Your task to perform on an android device: manage bookmarks in the chrome app Image 0: 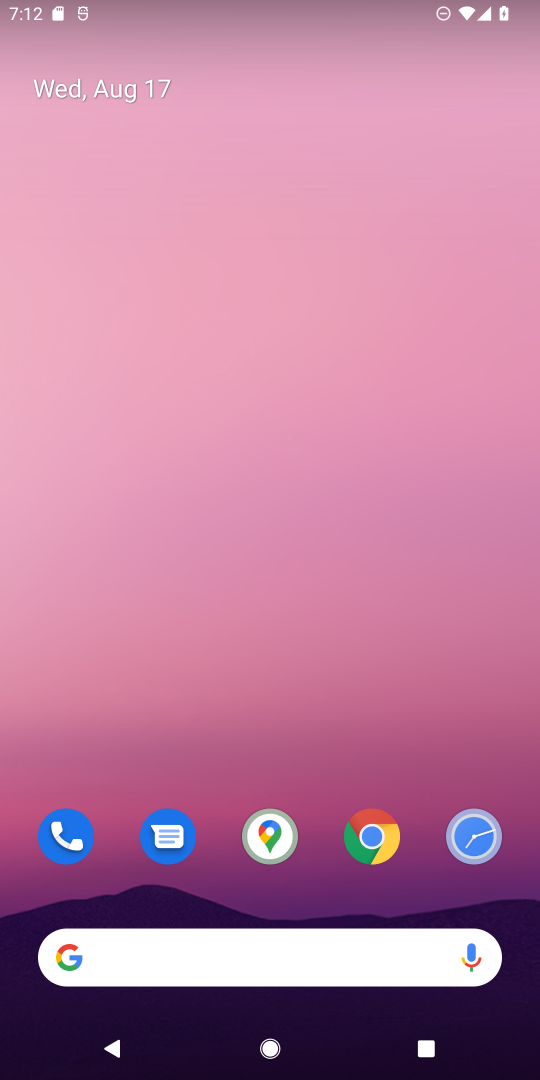
Step 0: drag from (282, 816) to (281, 502)
Your task to perform on an android device: manage bookmarks in the chrome app Image 1: 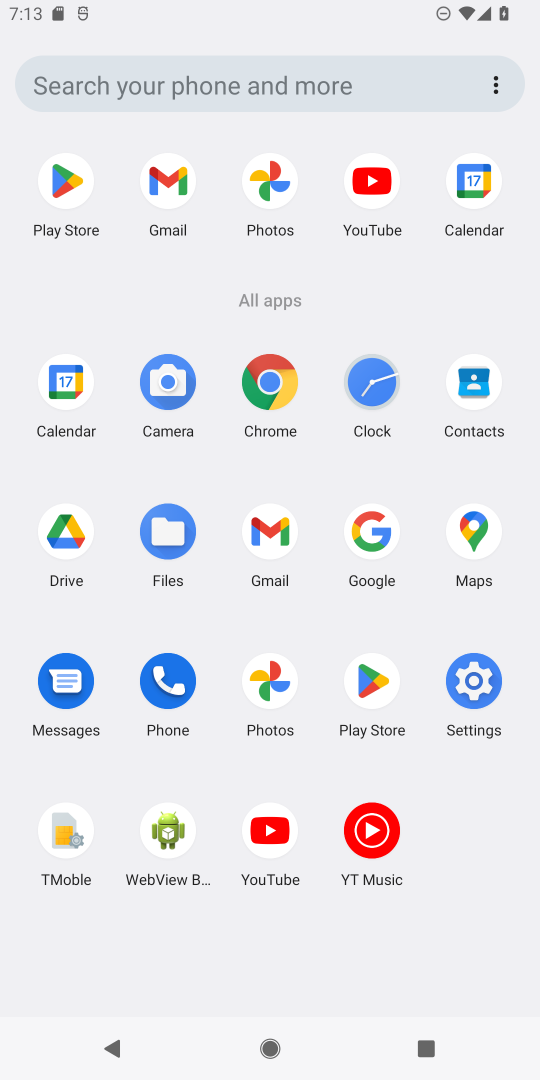
Step 1: click (278, 381)
Your task to perform on an android device: manage bookmarks in the chrome app Image 2: 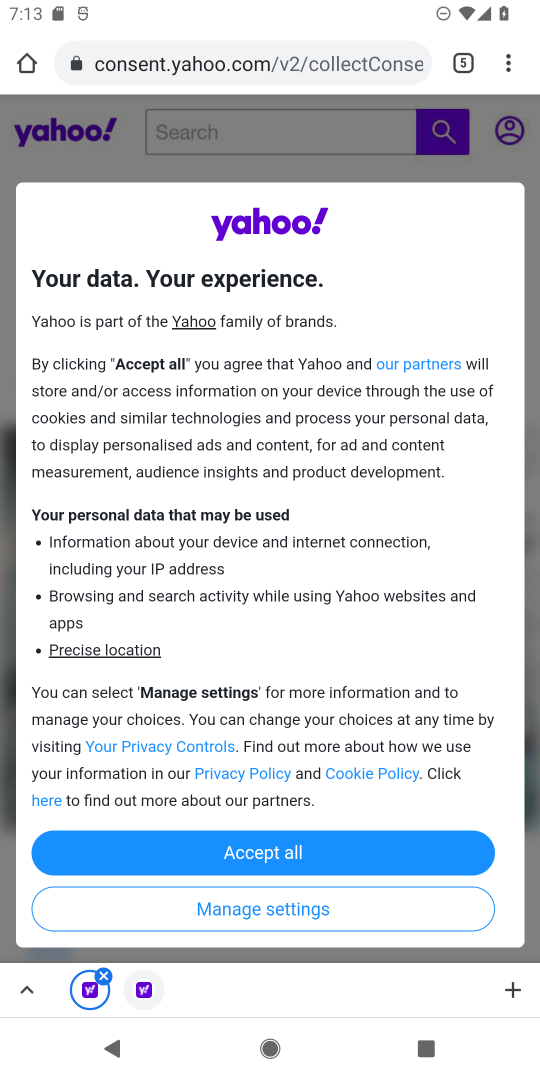
Step 2: click (505, 68)
Your task to perform on an android device: manage bookmarks in the chrome app Image 3: 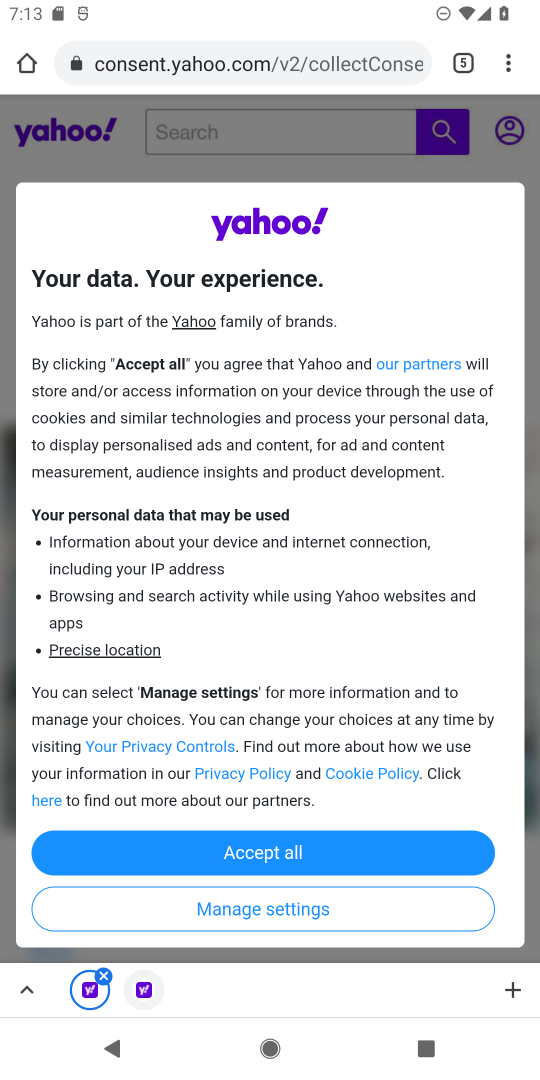
Step 3: click (502, 63)
Your task to perform on an android device: manage bookmarks in the chrome app Image 4: 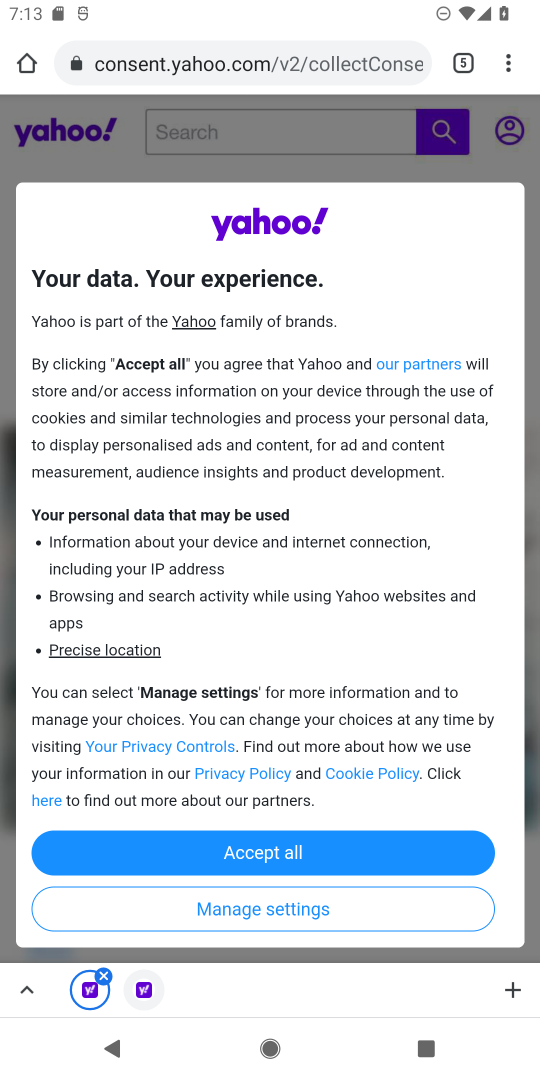
Step 4: click (517, 67)
Your task to perform on an android device: manage bookmarks in the chrome app Image 5: 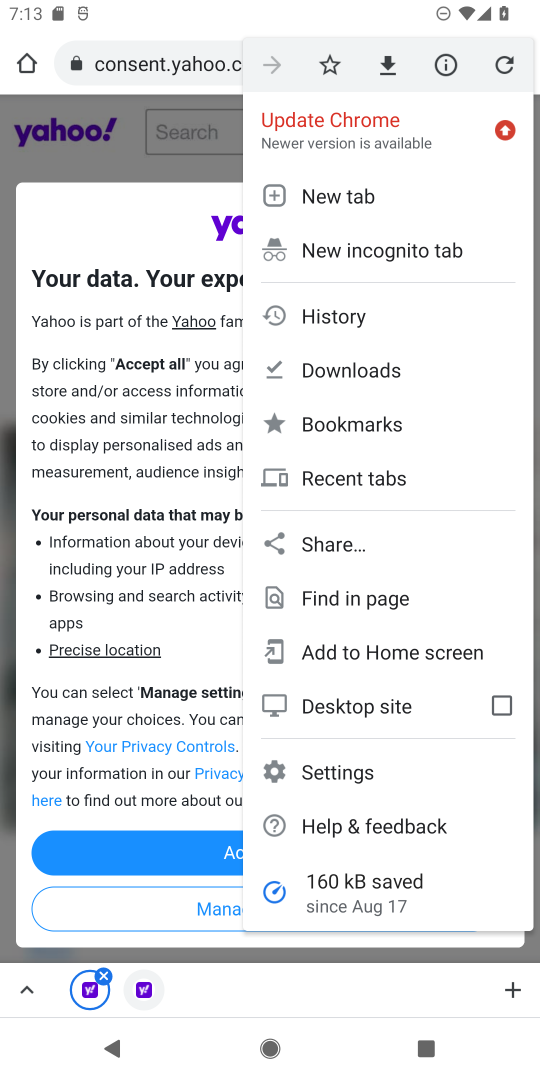
Step 5: click (353, 410)
Your task to perform on an android device: manage bookmarks in the chrome app Image 6: 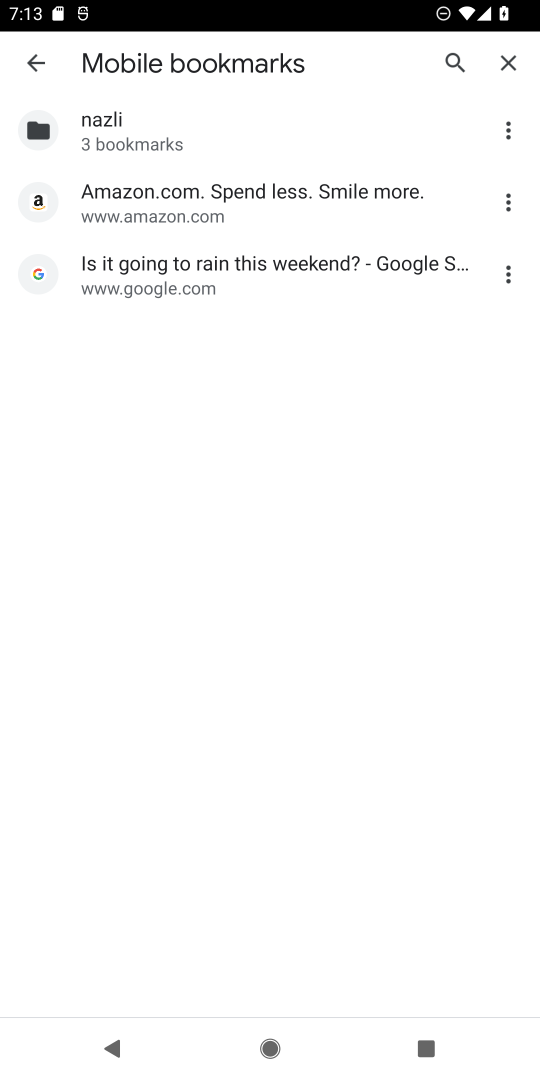
Step 6: click (224, 189)
Your task to perform on an android device: manage bookmarks in the chrome app Image 7: 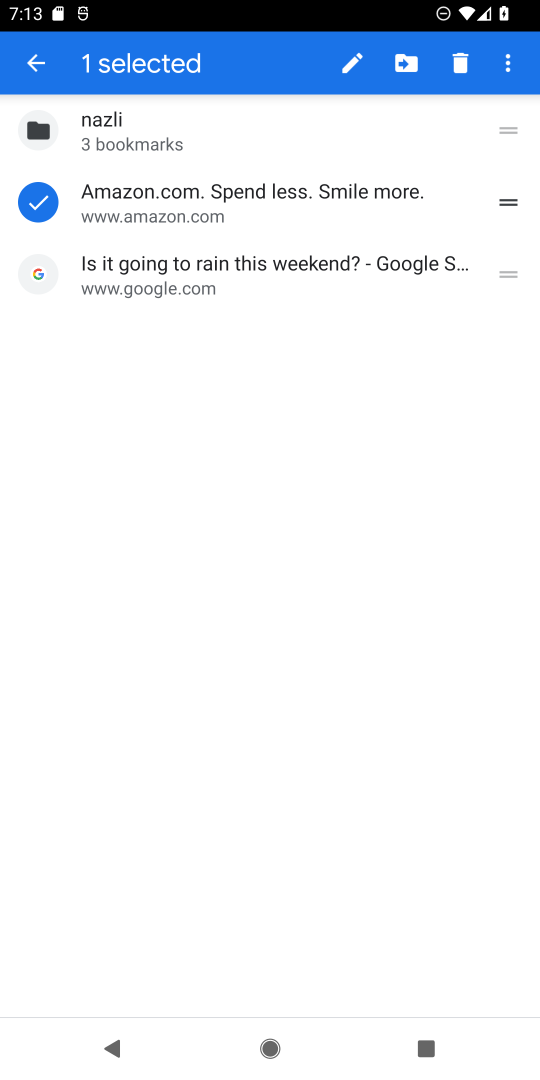
Step 7: click (173, 279)
Your task to perform on an android device: manage bookmarks in the chrome app Image 8: 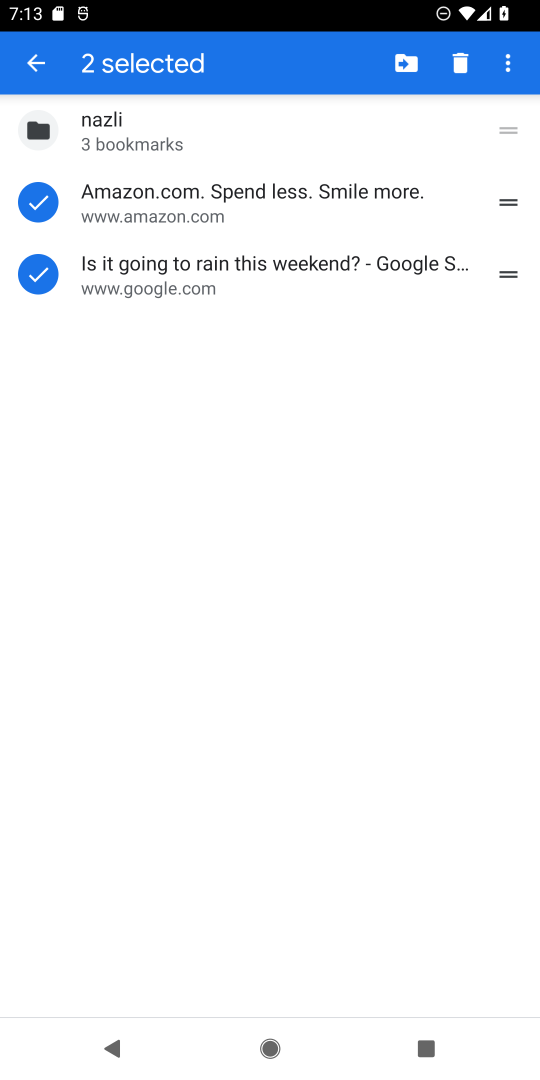
Step 8: click (408, 72)
Your task to perform on an android device: manage bookmarks in the chrome app Image 9: 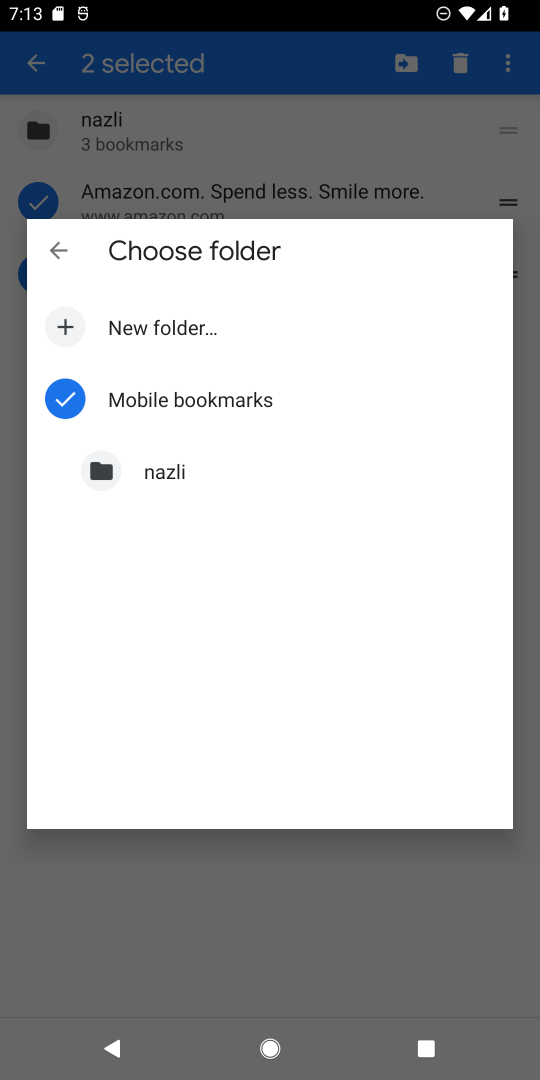
Step 9: click (157, 453)
Your task to perform on an android device: manage bookmarks in the chrome app Image 10: 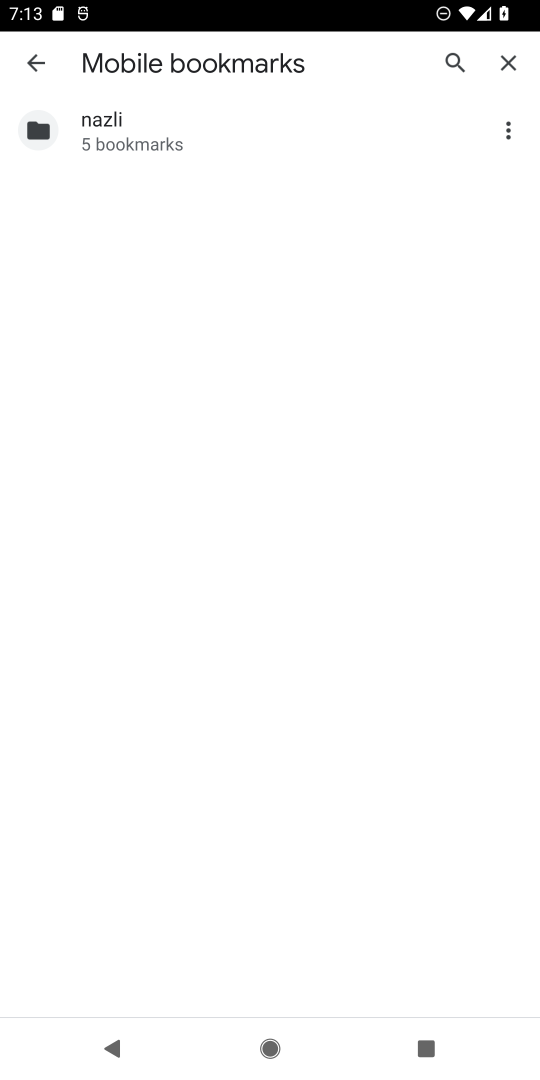
Step 10: click (265, 149)
Your task to perform on an android device: manage bookmarks in the chrome app Image 11: 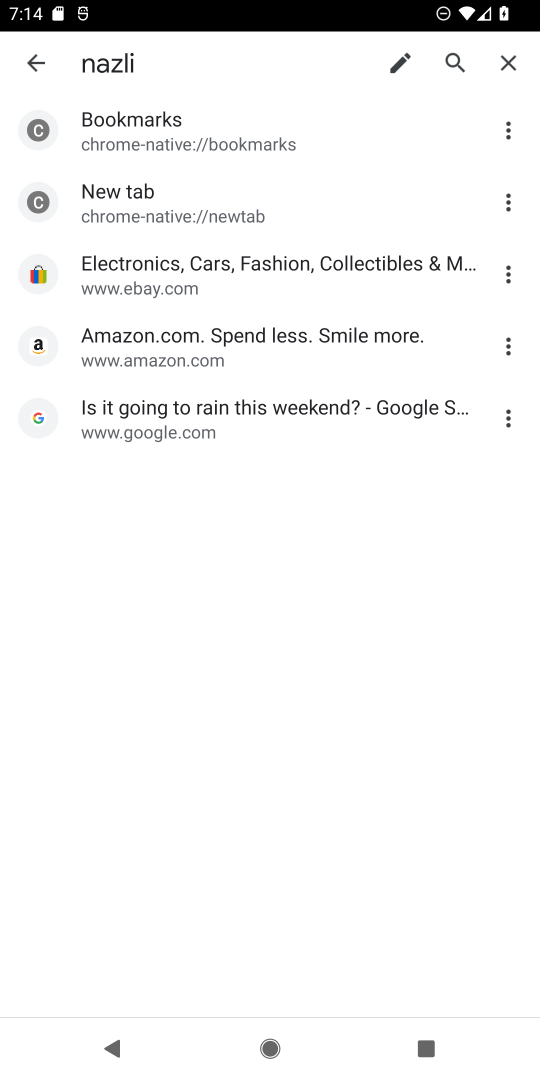
Step 11: task complete